Your task to perform on an android device: Go to Google maps Image 0: 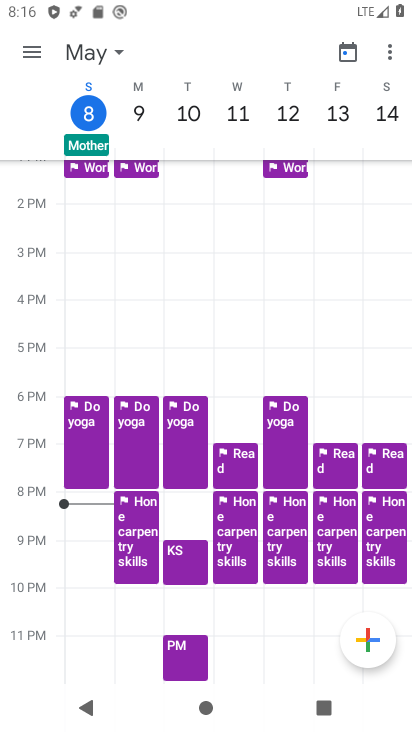
Step 0: press home button
Your task to perform on an android device: Go to Google maps Image 1: 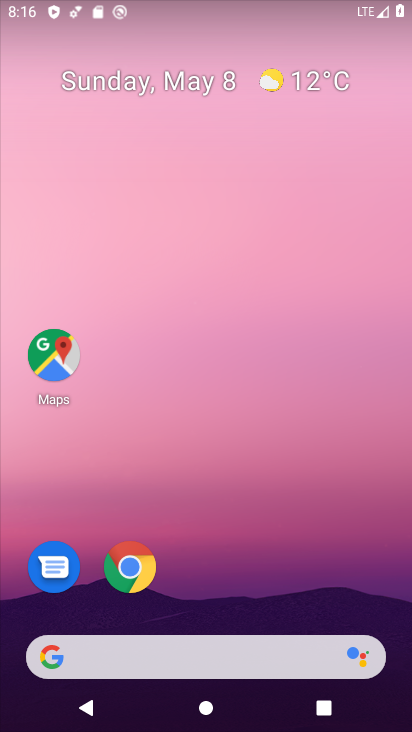
Step 1: click (53, 361)
Your task to perform on an android device: Go to Google maps Image 2: 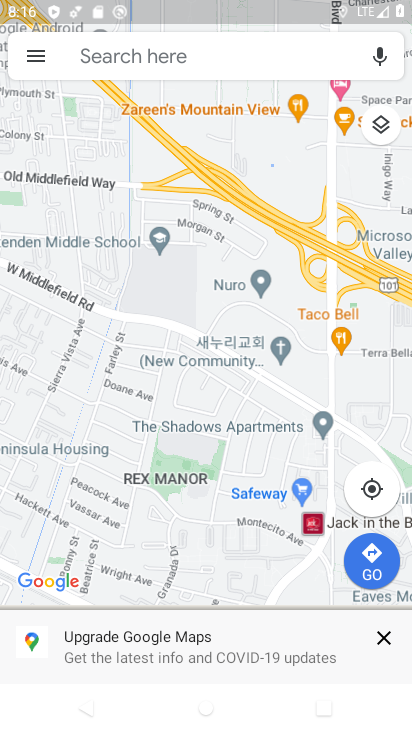
Step 2: task complete